Your task to perform on an android device: Go to Amazon Image 0: 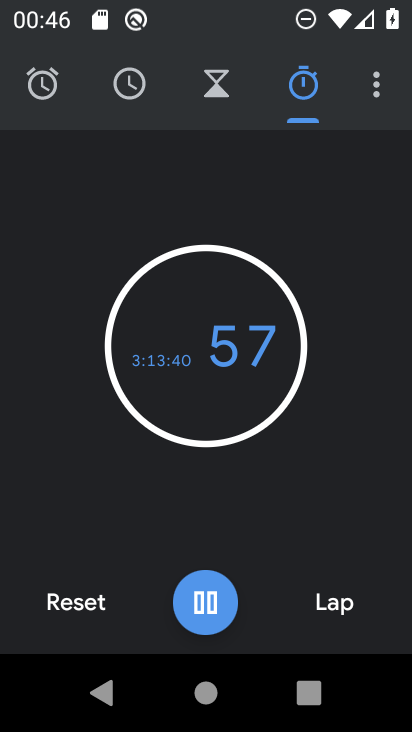
Step 0: press home button
Your task to perform on an android device: Go to Amazon Image 1: 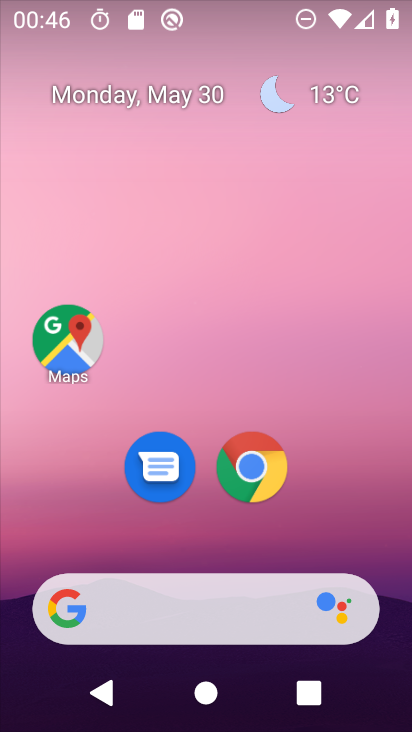
Step 1: click (244, 463)
Your task to perform on an android device: Go to Amazon Image 2: 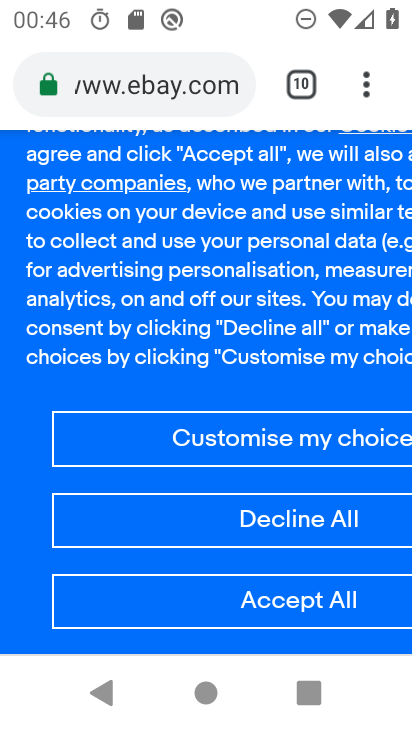
Step 2: click (288, 76)
Your task to perform on an android device: Go to Amazon Image 3: 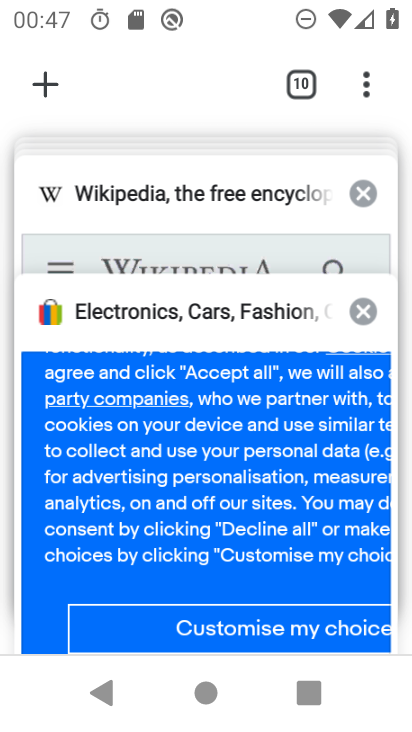
Step 3: drag from (209, 335) to (200, 517)
Your task to perform on an android device: Go to Amazon Image 4: 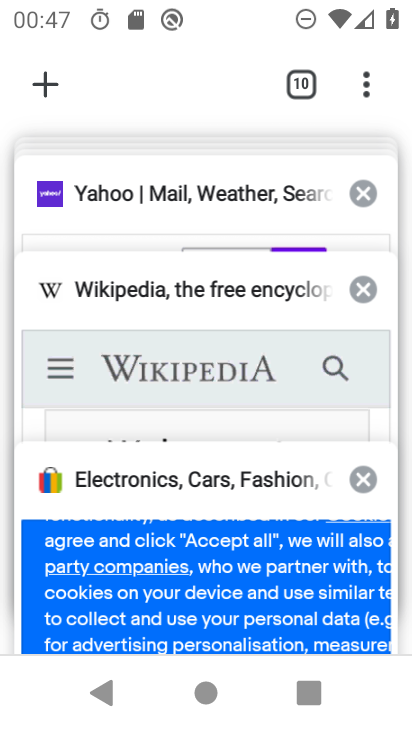
Step 4: drag from (198, 298) to (217, 466)
Your task to perform on an android device: Go to Amazon Image 5: 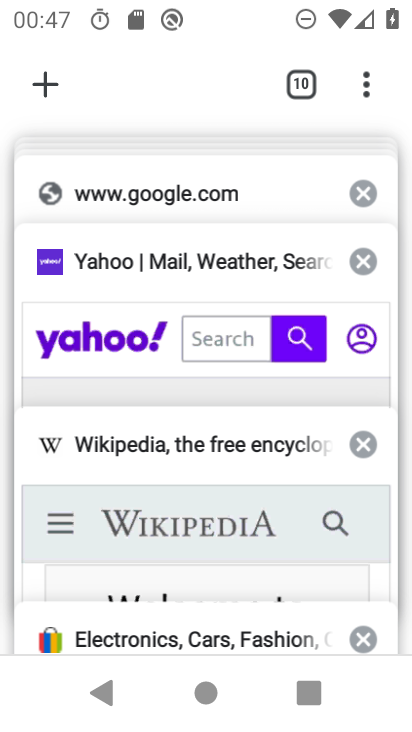
Step 5: drag from (167, 321) to (173, 482)
Your task to perform on an android device: Go to Amazon Image 6: 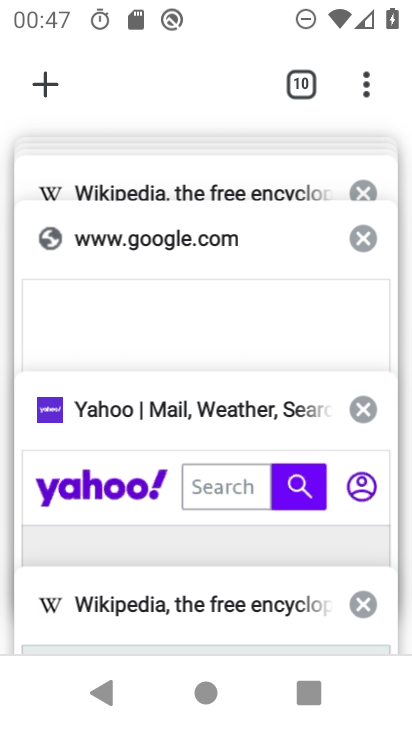
Step 6: drag from (162, 307) to (162, 504)
Your task to perform on an android device: Go to Amazon Image 7: 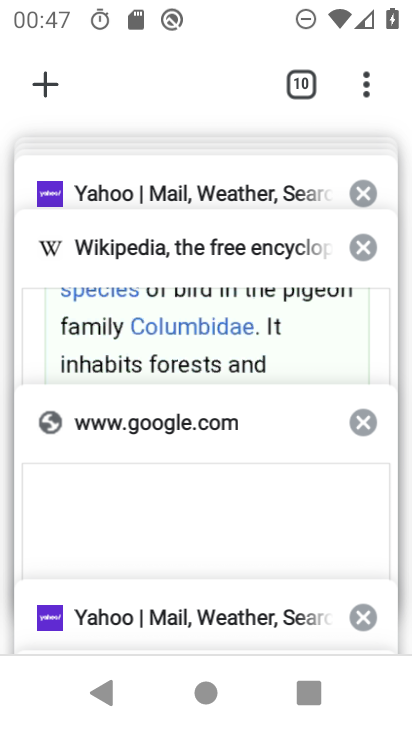
Step 7: drag from (137, 275) to (151, 482)
Your task to perform on an android device: Go to Amazon Image 8: 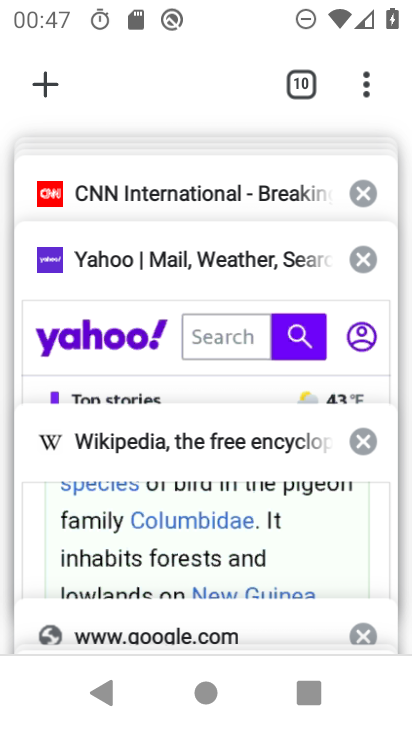
Step 8: drag from (127, 264) to (127, 525)
Your task to perform on an android device: Go to Amazon Image 9: 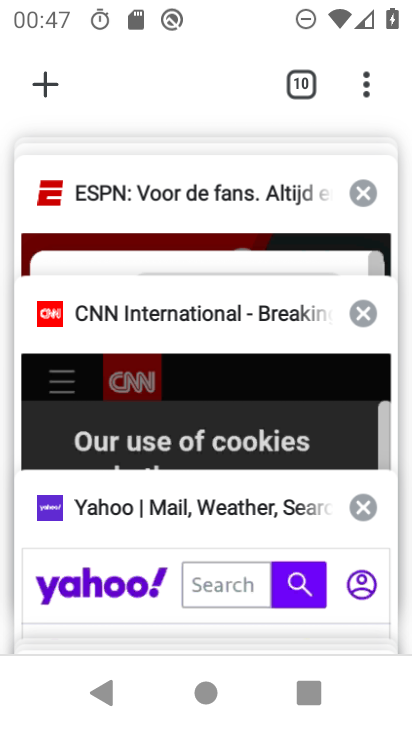
Step 9: drag from (101, 263) to (126, 465)
Your task to perform on an android device: Go to Amazon Image 10: 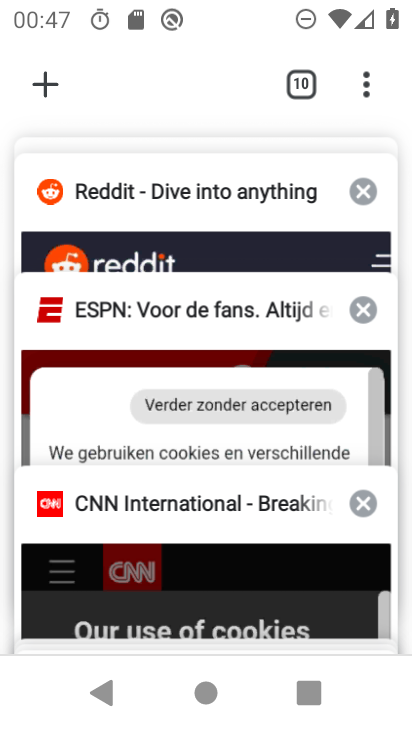
Step 10: drag from (92, 243) to (104, 393)
Your task to perform on an android device: Go to Amazon Image 11: 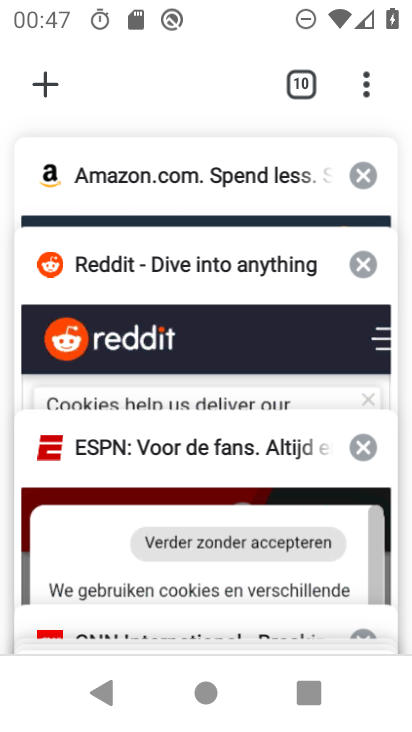
Step 11: drag from (113, 263) to (125, 390)
Your task to perform on an android device: Go to Amazon Image 12: 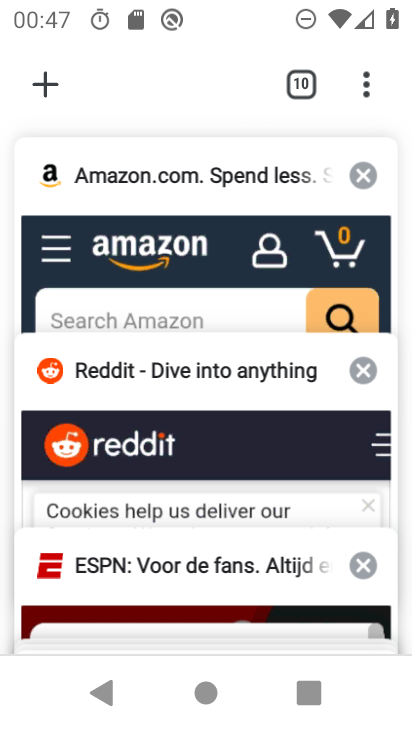
Step 12: click (99, 227)
Your task to perform on an android device: Go to Amazon Image 13: 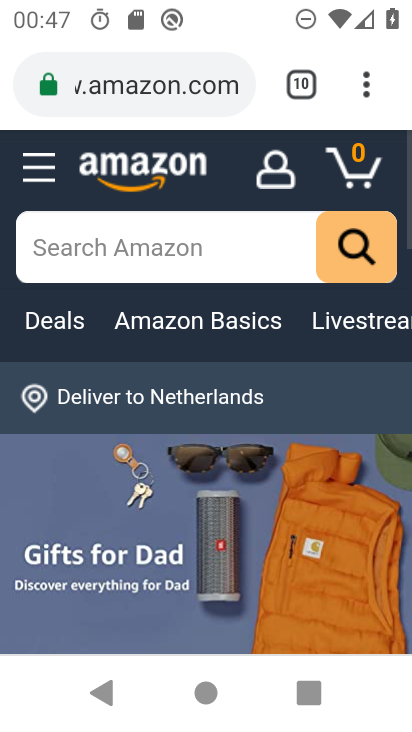
Step 13: task complete